Your task to perform on an android device: install app "Google Play Games" Image 0: 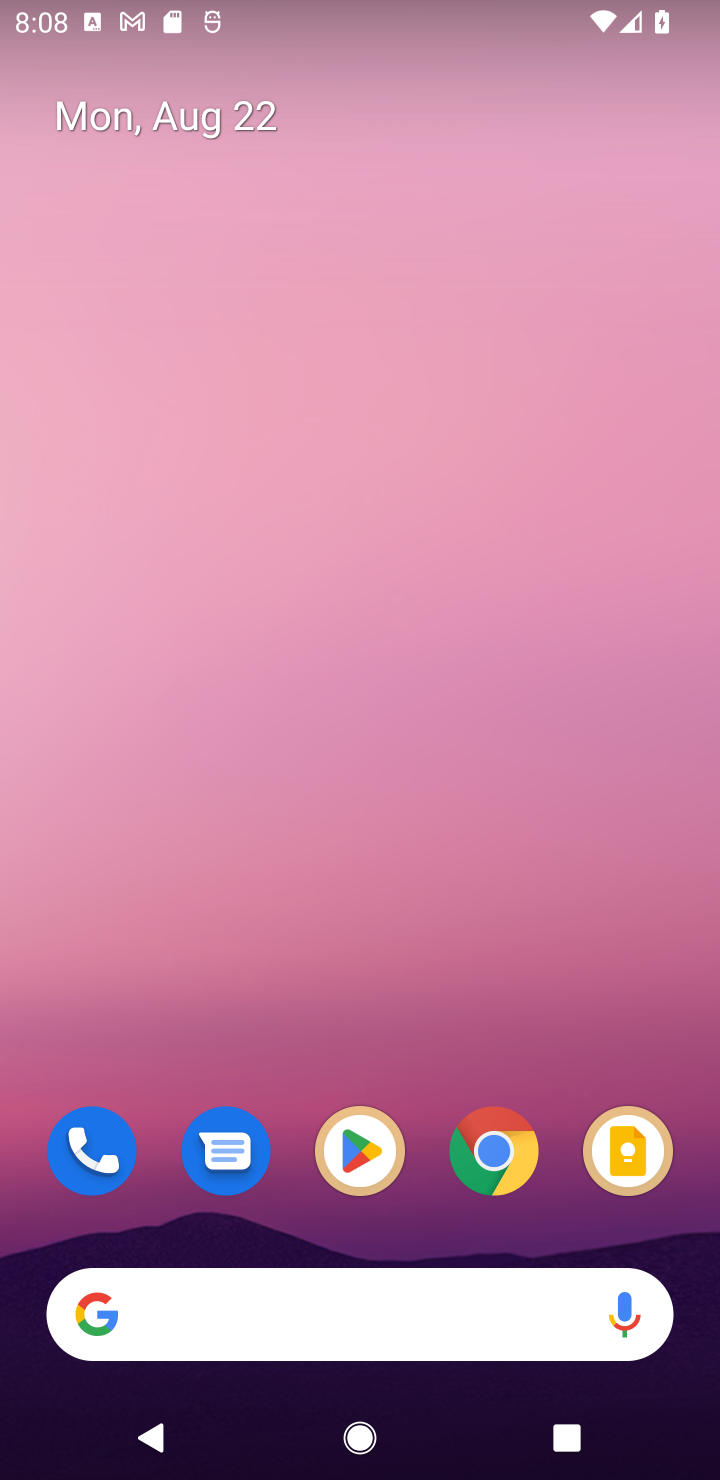
Step 0: press home button
Your task to perform on an android device: install app "Google Play Games" Image 1: 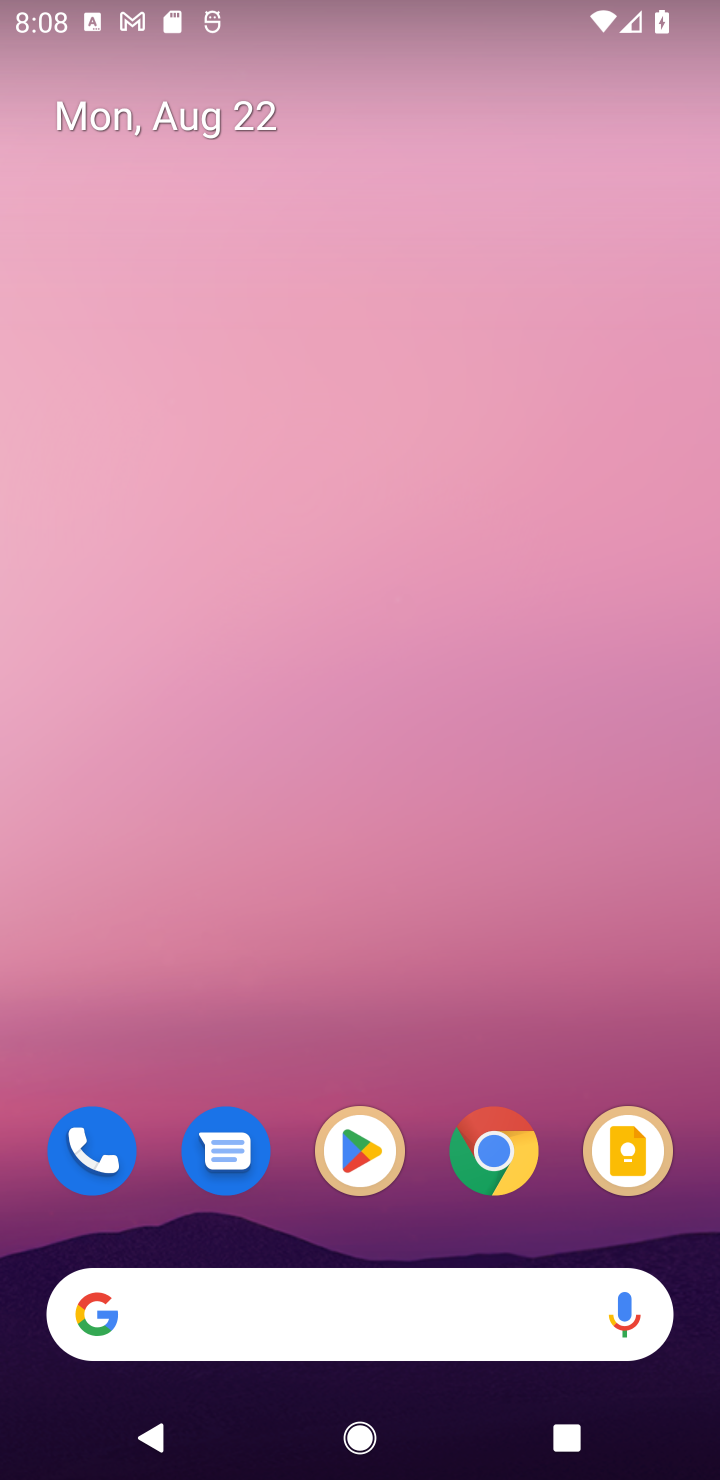
Step 1: click (348, 1140)
Your task to perform on an android device: install app "Google Play Games" Image 2: 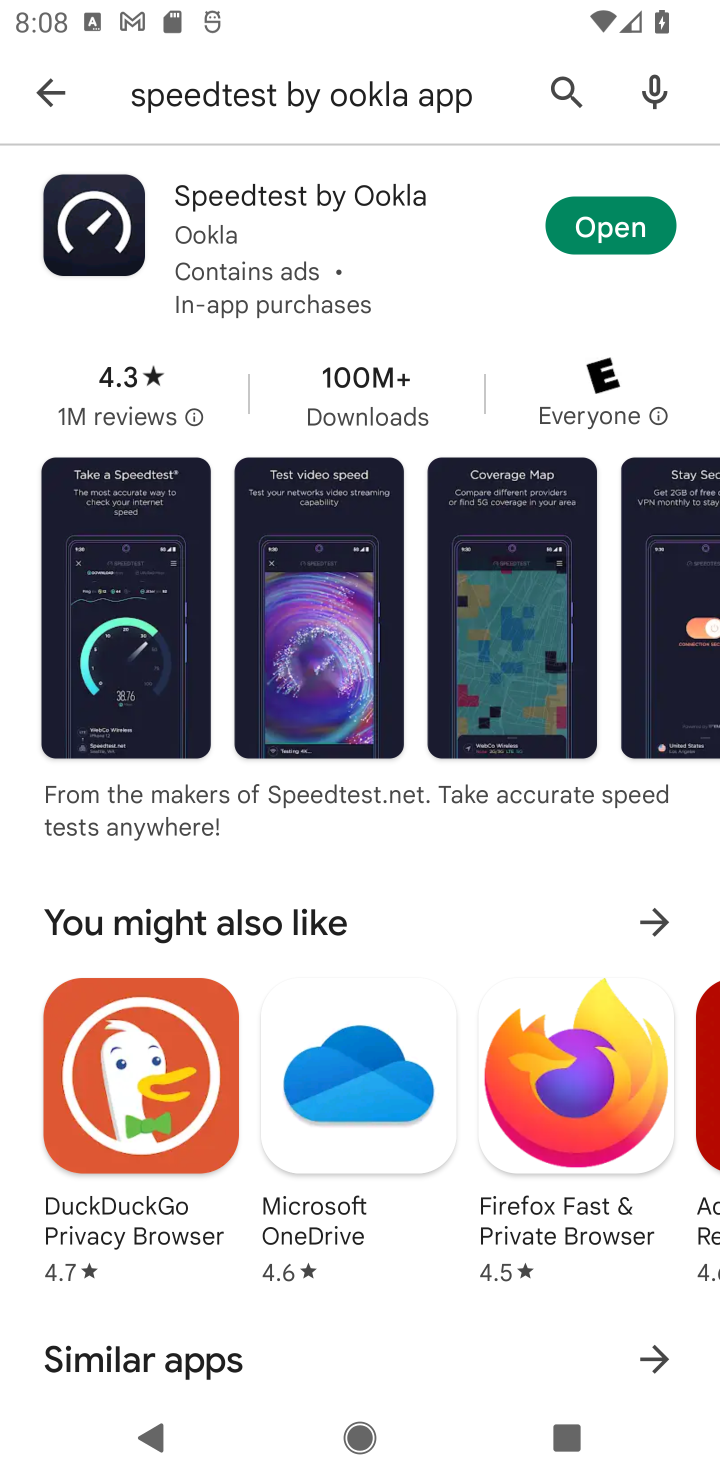
Step 2: click (559, 91)
Your task to perform on an android device: install app "Google Play Games" Image 3: 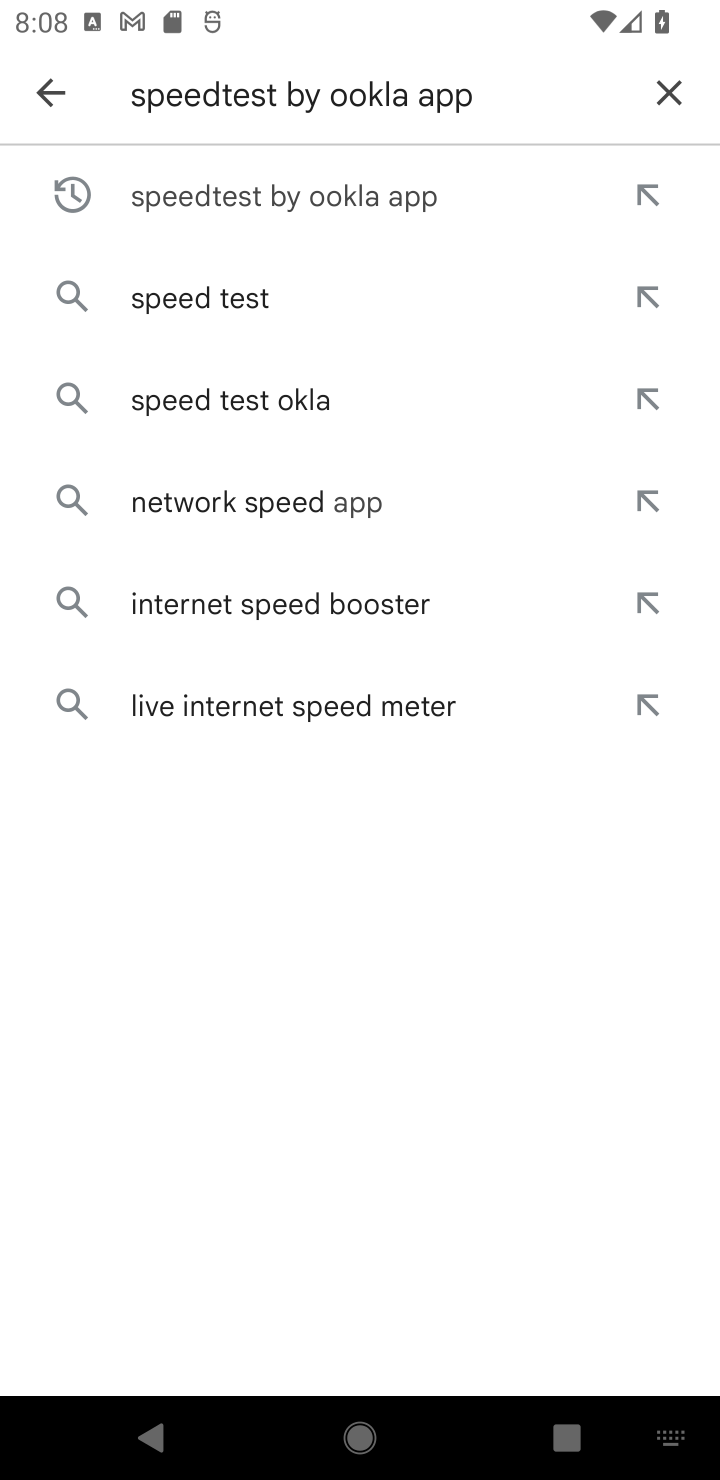
Step 3: click (663, 95)
Your task to perform on an android device: install app "Google Play Games" Image 4: 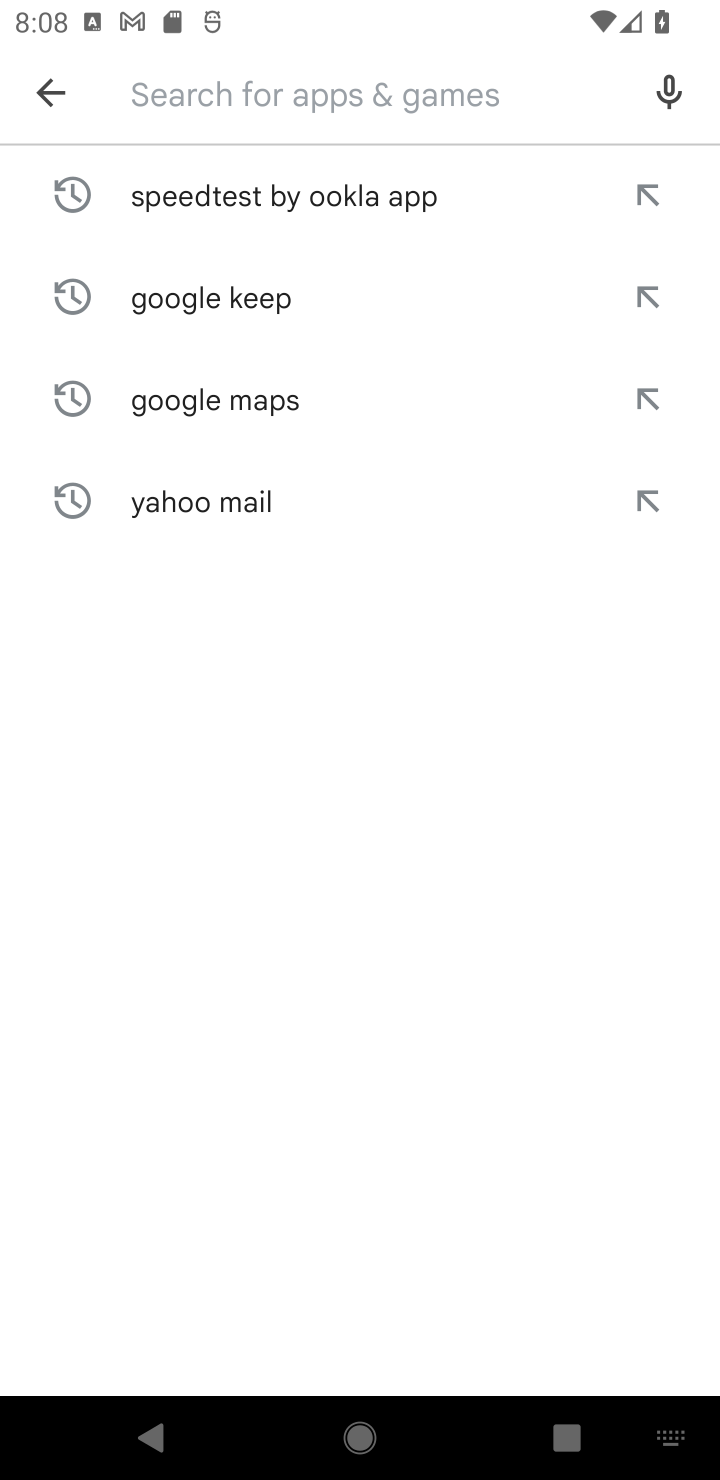
Step 4: type "Google Play Games"
Your task to perform on an android device: install app "Google Play Games" Image 5: 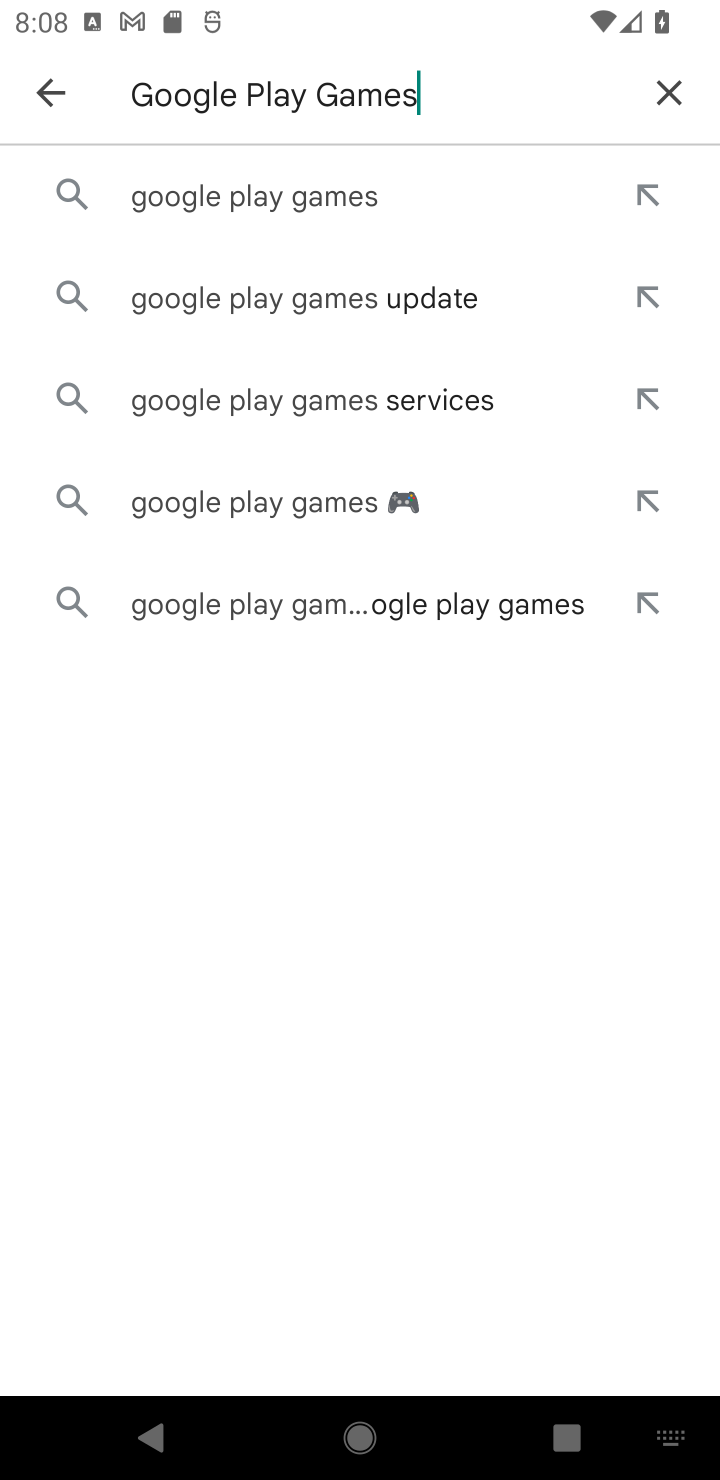
Step 5: click (312, 197)
Your task to perform on an android device: install app "Google Play Games" Image 6: 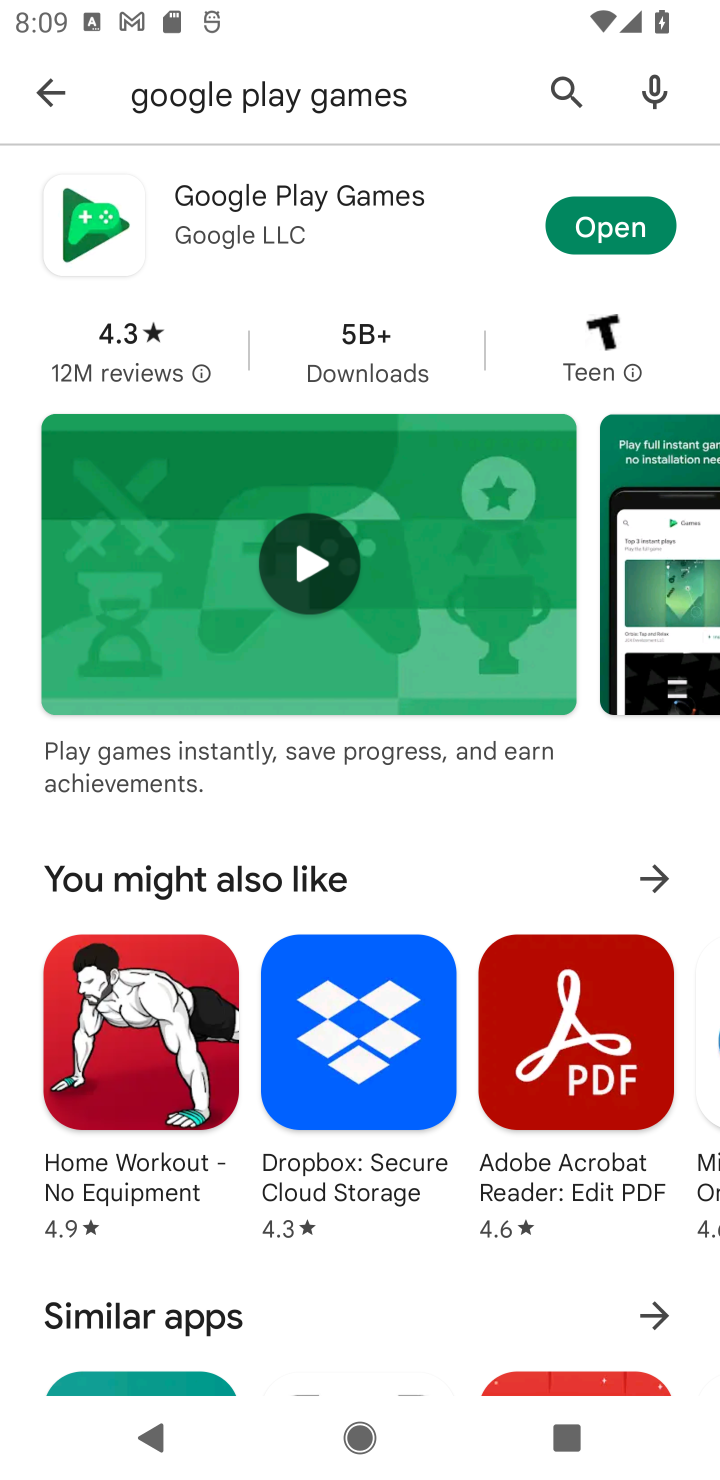
Step 6: task complete